Your task to perform on an android device: open the mobile data screen to see how much data has been used Image 0: 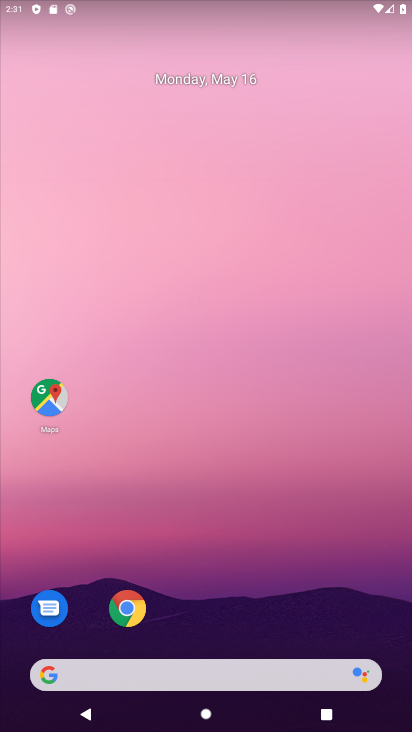
Step 0: drag from (274, 501) to (321, 48)
Your task to perform on an android device: open the mobile data screen to see how much data has been used Image 1: 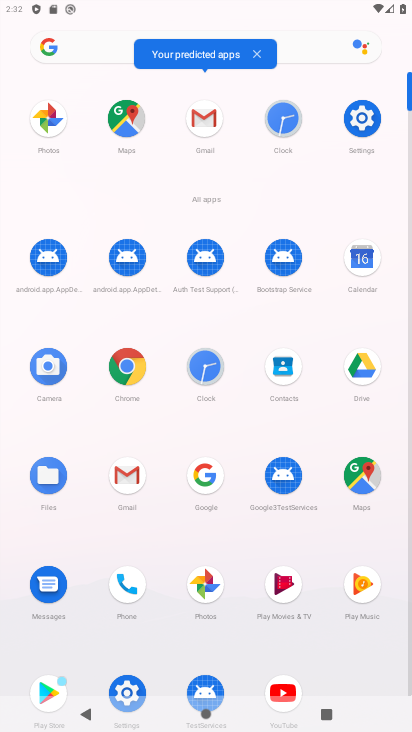
Step 1: click (361, 119)
Your task to perform on an android device: open the mobile data screen to see how much data has been used Image 2: 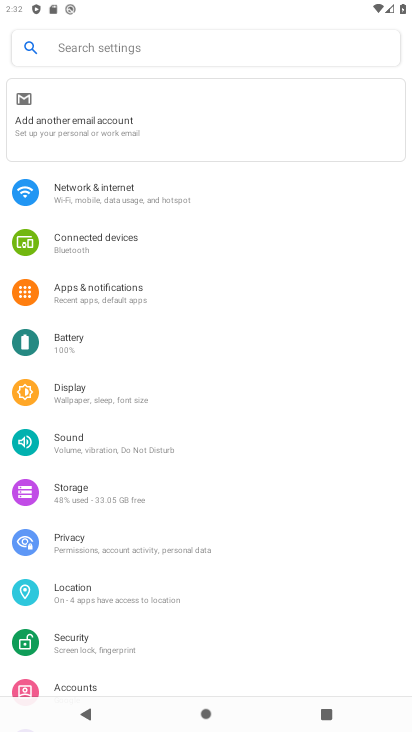
Step 2: click (110, 197)
Your task to perform on an android device: open the mobile data screen to see how much data has been used Image 3: 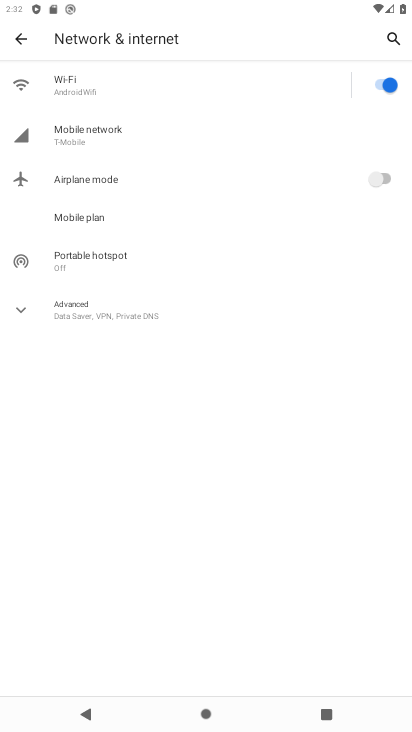
Step 3: click (101, 131)
Your task to perform on an android device: open the mobile data screen to see how much data has been used Image 4: 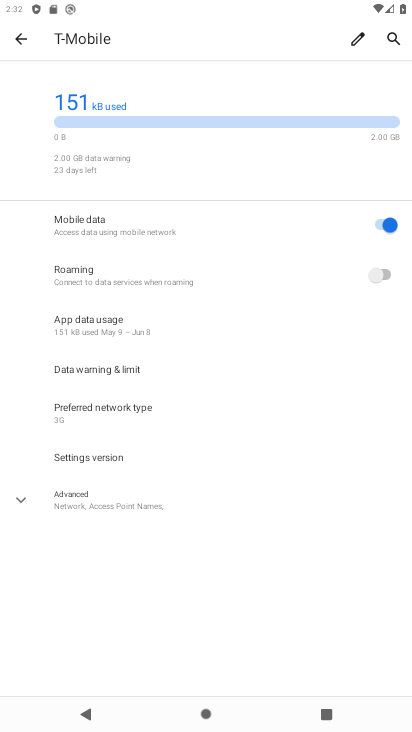
Step 4: click (192, 122)
Your task to perform on an android device: open the mobile data screen to see how much data has been used Image 5: 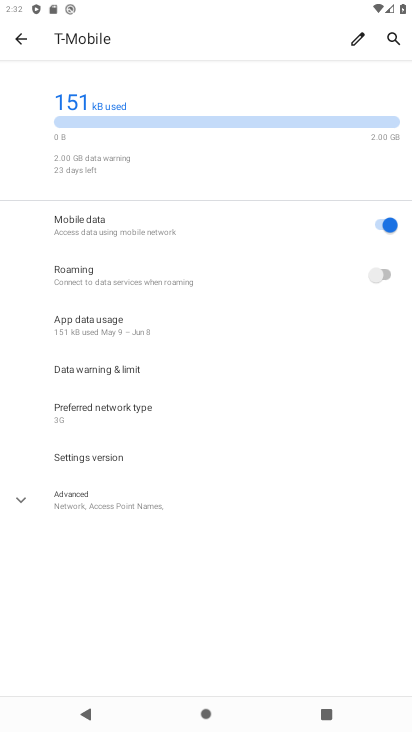
Step 5: task complete